Your task to perform on an android device: Go to CNN.com Image 0: 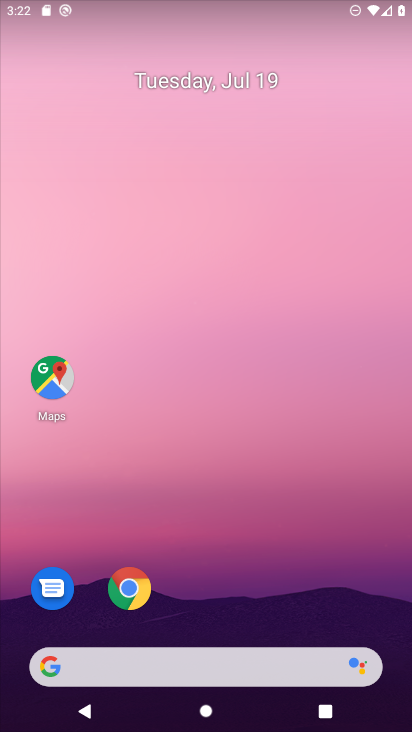
Step 0: click (130, 593)
Your task to perform on an android device: Go to CNN.com Image 1: 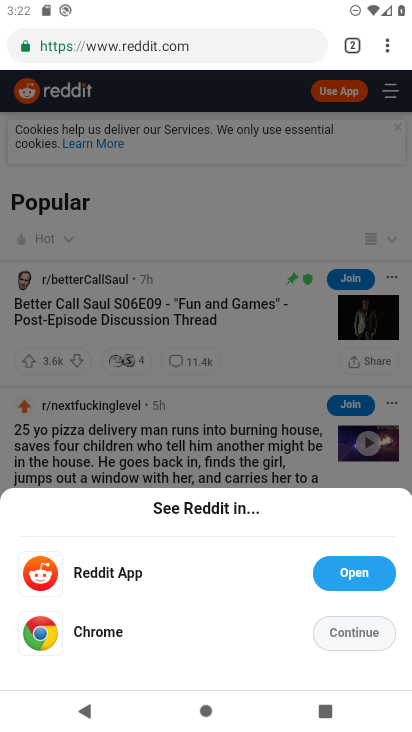
Step 1: click (164, 42)
Your task to perform on an android device: Go to CNN.com Image 2: 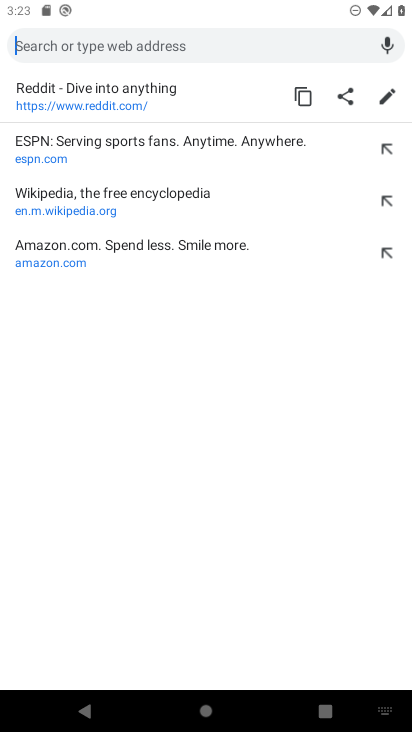
Step 2: type "www.cnn.com"
Your task to perform on an android device: Go to CNN.com Image 3: 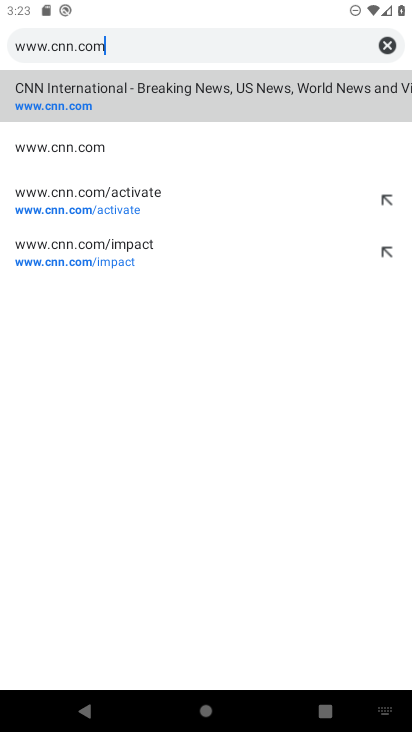
Step 3: click (70, 95)
Your task to perform on an android device: Go to CNN.com Image 4: 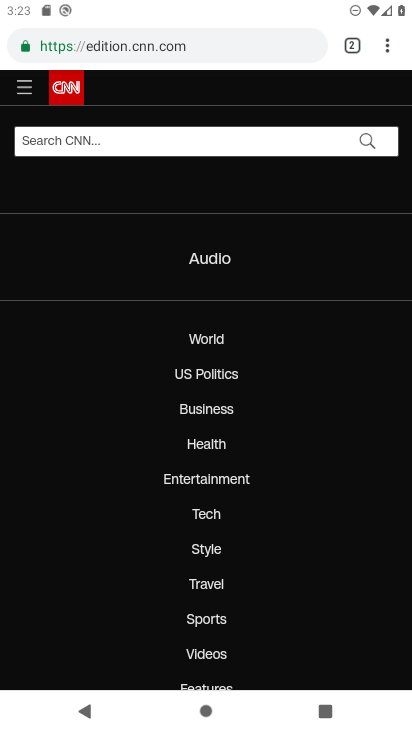
Step 4: task complete